Your task to perform on an android device: uninstall "Google Drive" Image 0: 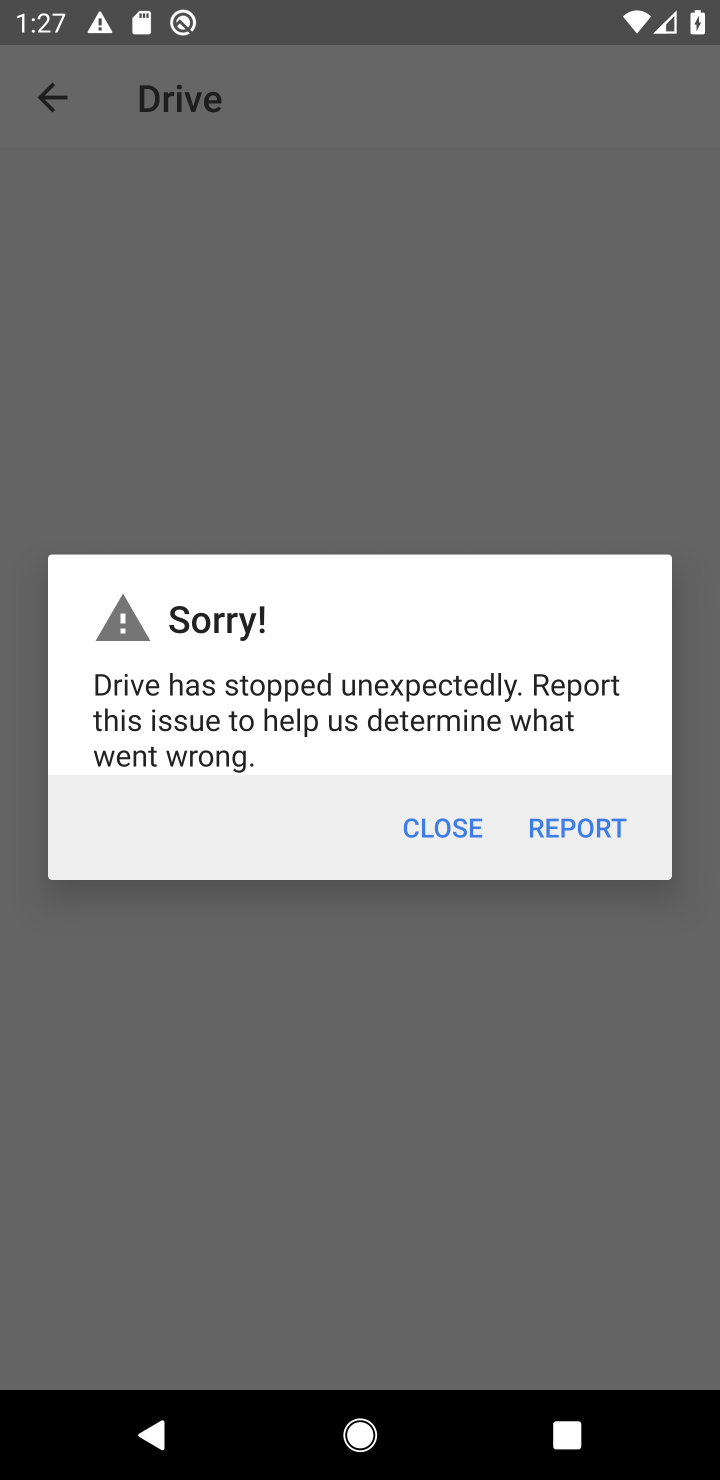
Step 0: press home button
Your task to perform on an android device: uninstall "Google Drive" Image 1: 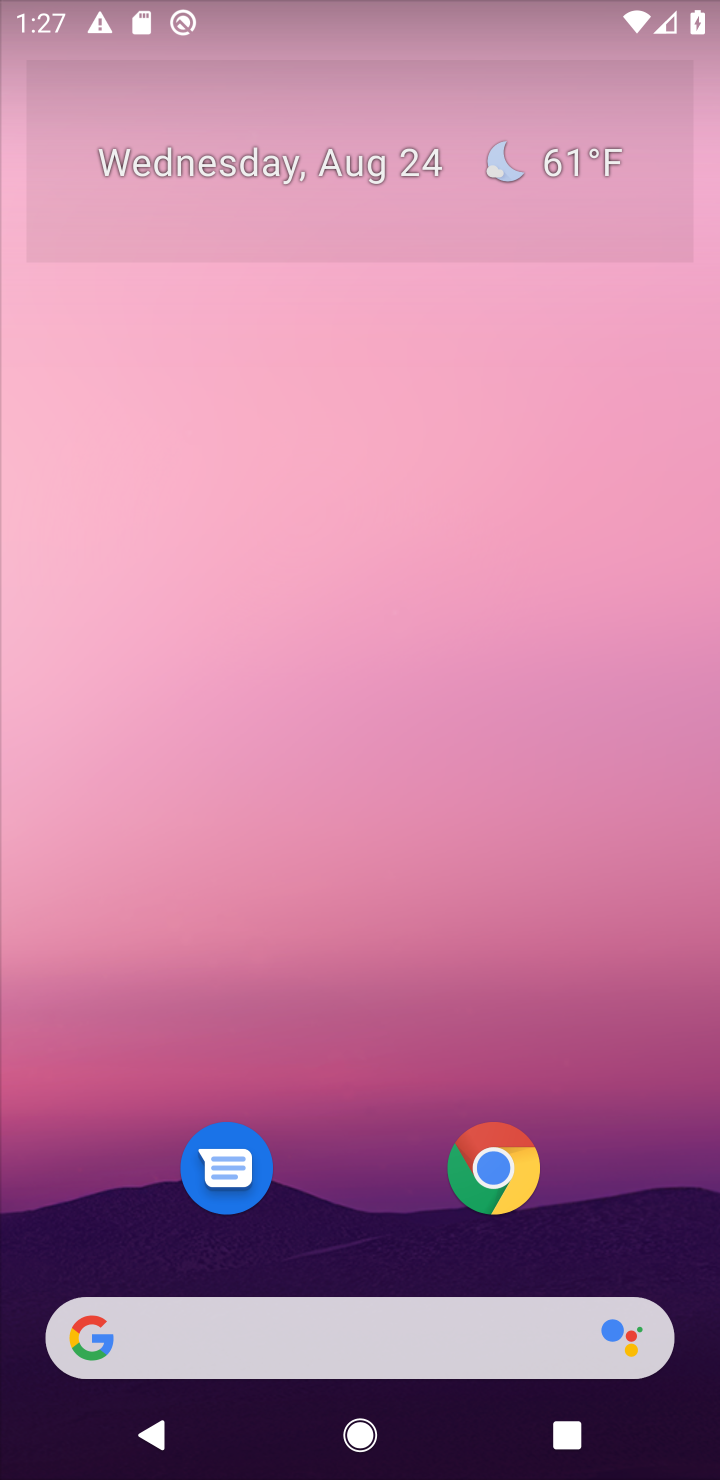
Step 1: drag from (677, 1189) to (633, 223)
Your task to perform on an android device: uninstall "Google Drive" Image 2: 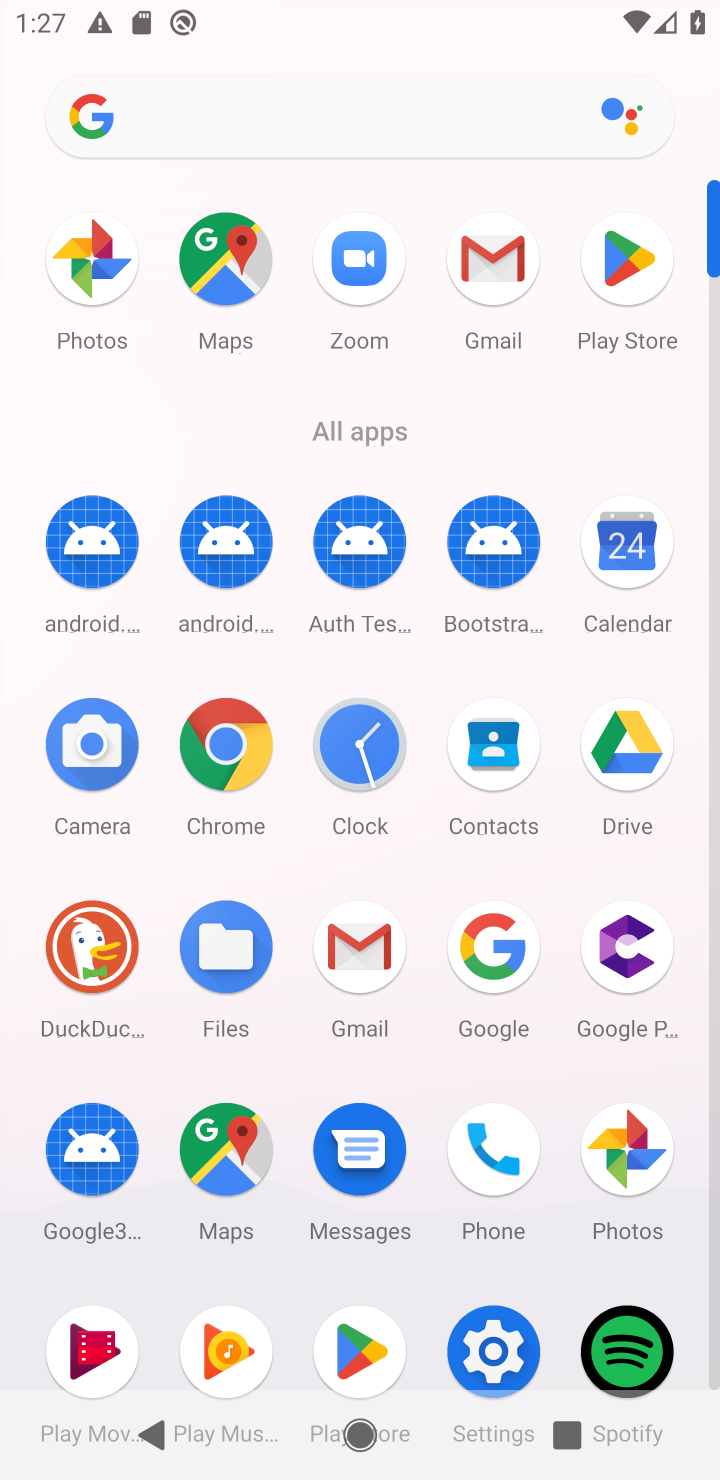
Step 2: click (716, 1302)
Your task to perform on an android device: uninstall "Google Drive" Image 3: 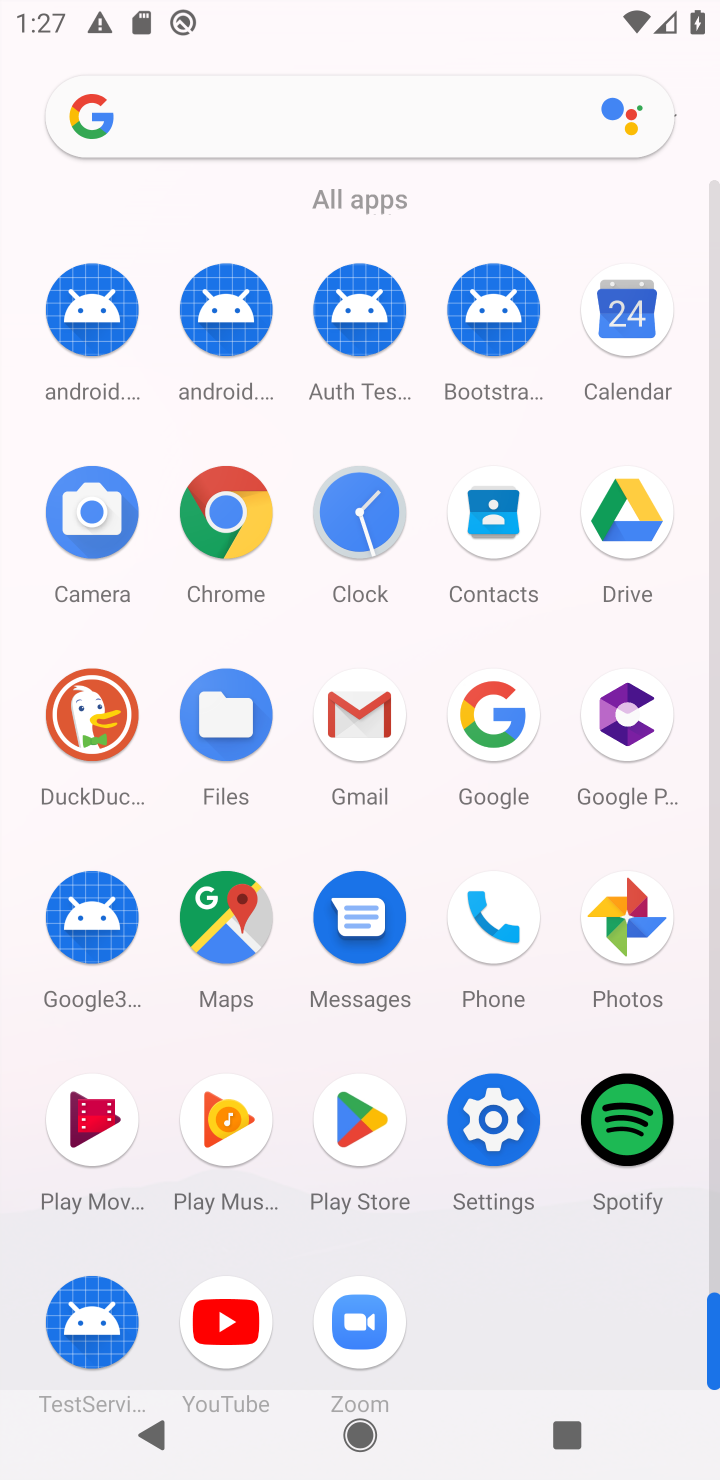
Step 3: click (361, 1115)
Your task to perform on an android device: uninstall "Google Drive" Image 4: 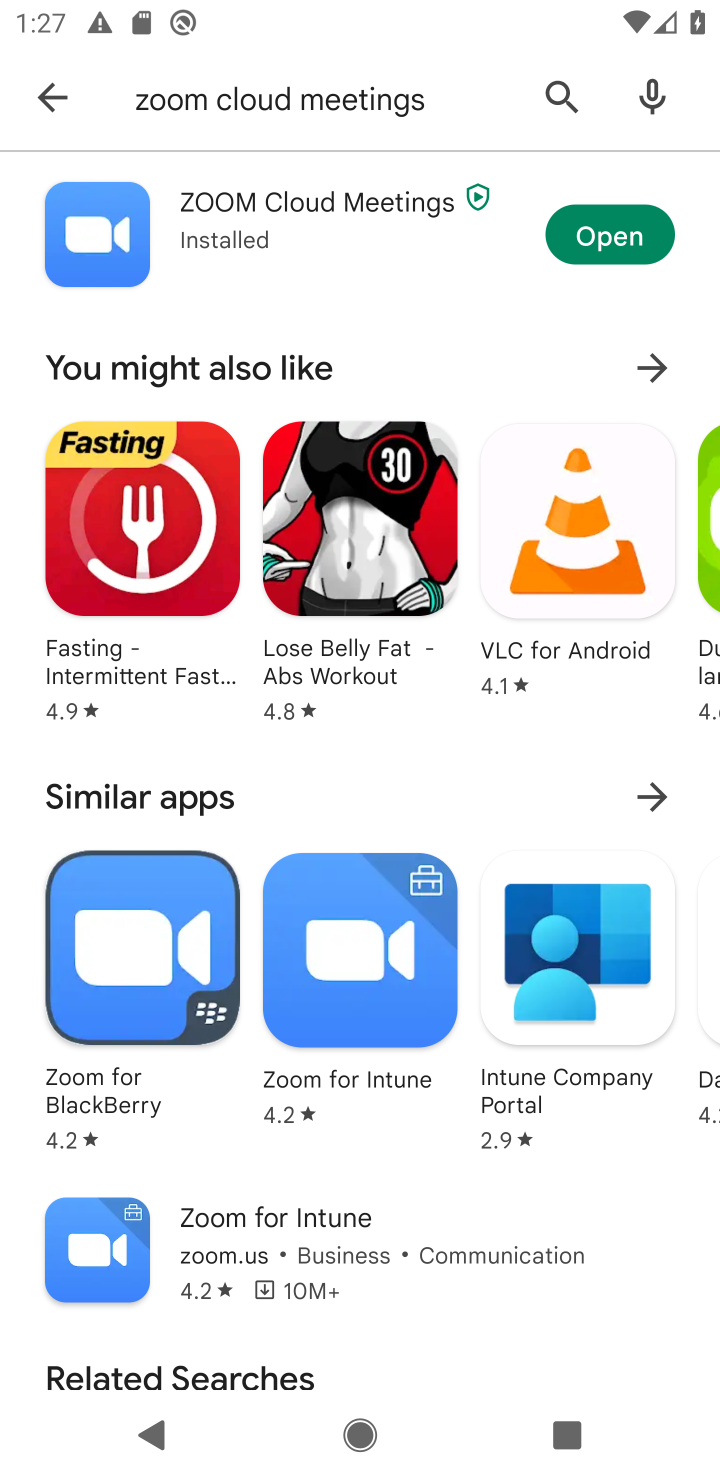
Step 4: click (547, 86)
Your task to perform on an android device: uninstall "Google Drive" Image 5: 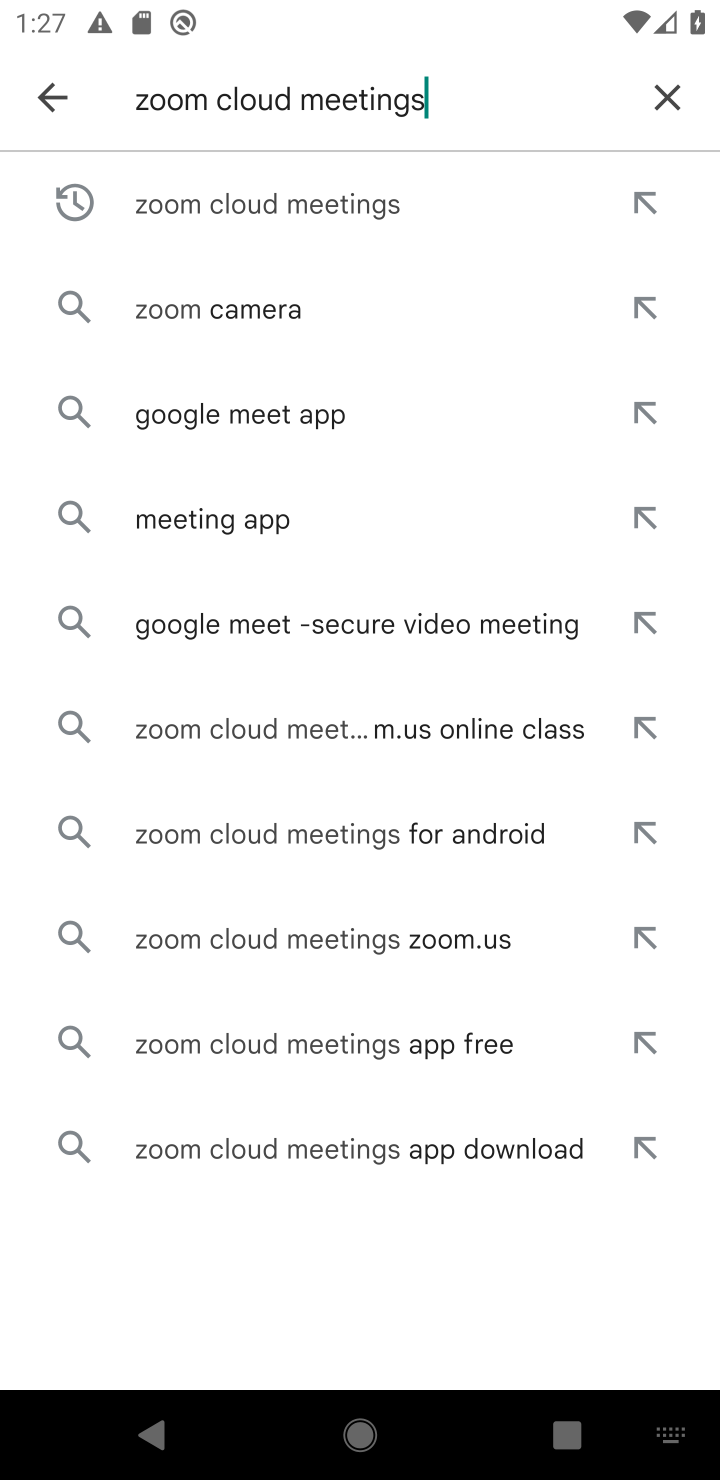
Step 5: click (667, 94)
Your task to perform on an android device: uninstall "Google Drive" Image 6: 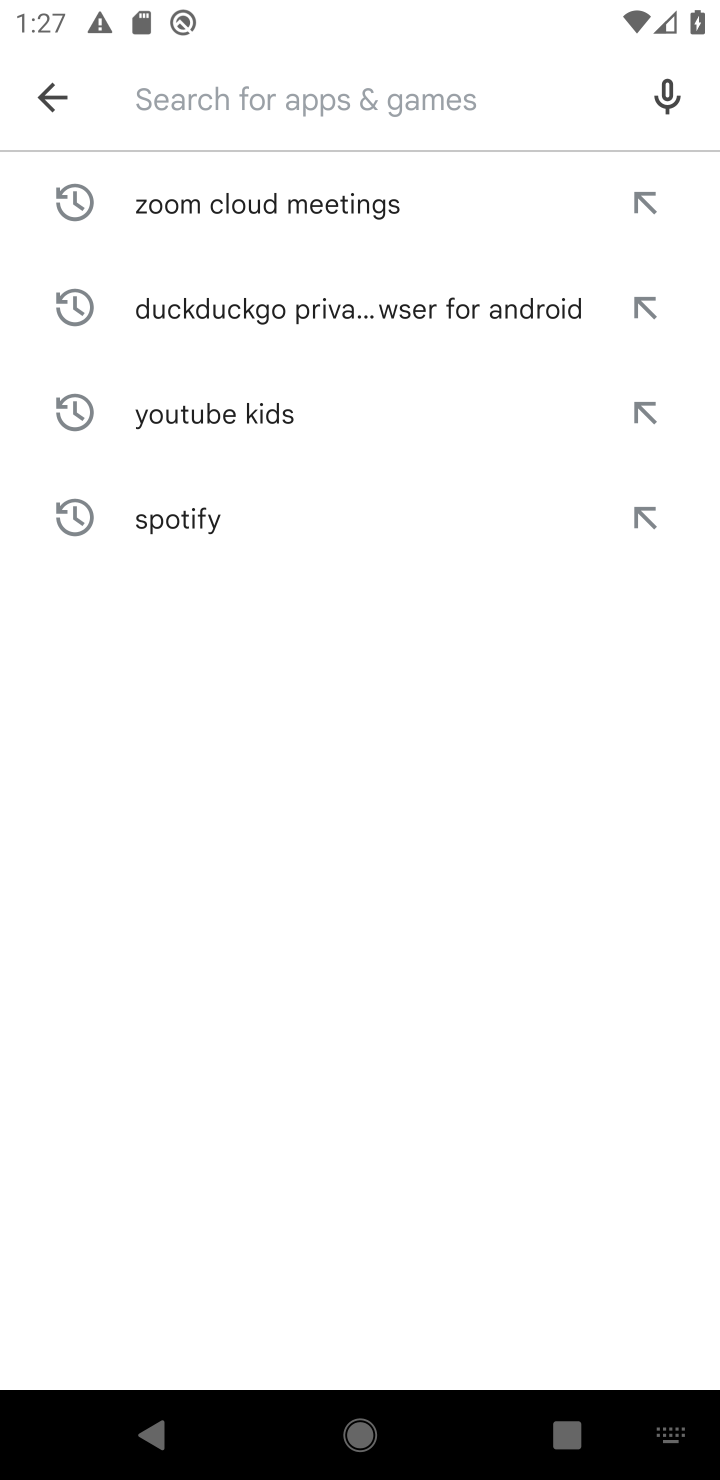
Step 6: type "Google Drive"
Your task to perform on an android device: uninstall "Google Drive" Image 7: 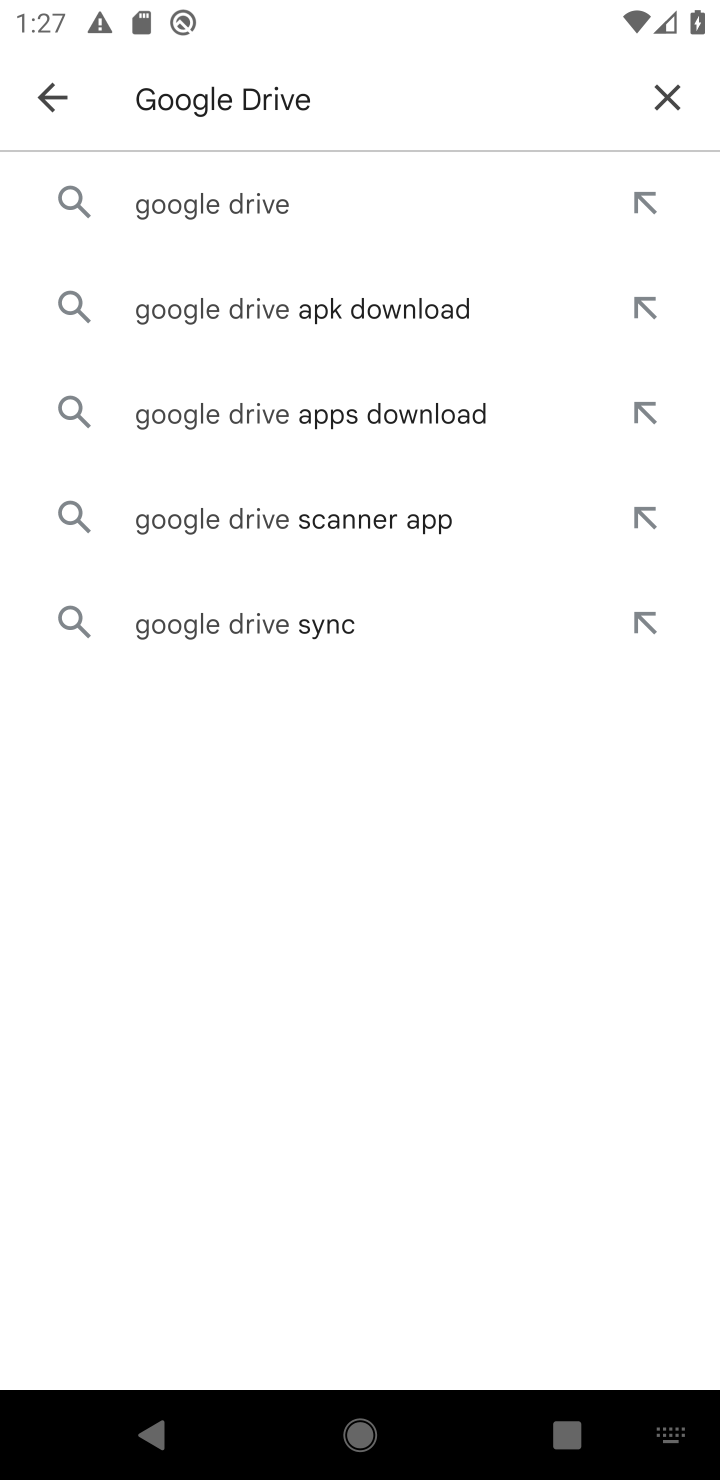
Step 7: click (218, 193)
Your task to perform on an android device: uninstall "Google Drive" Image 8: 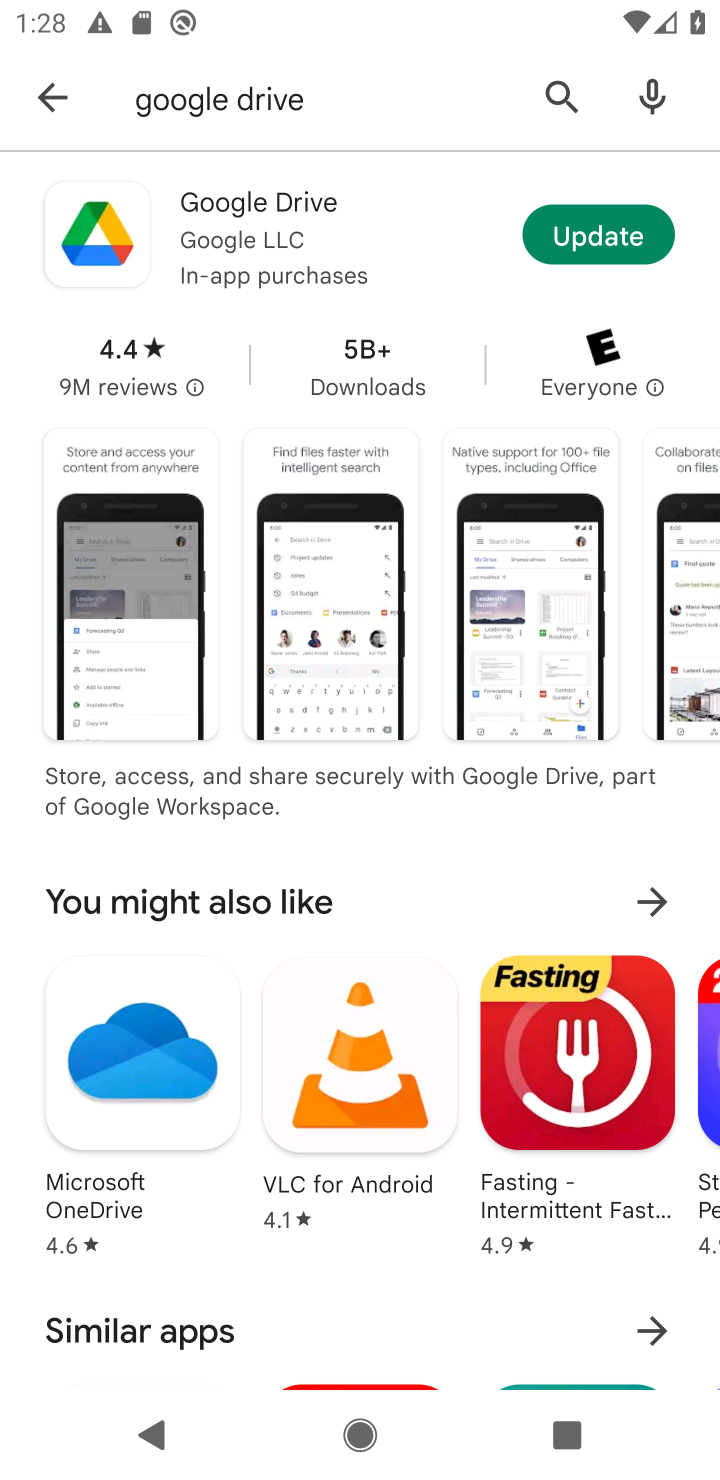
Step 8: click (263, 236)
Your task to perform on an android device: uninstall "Google Drive" Image 9: 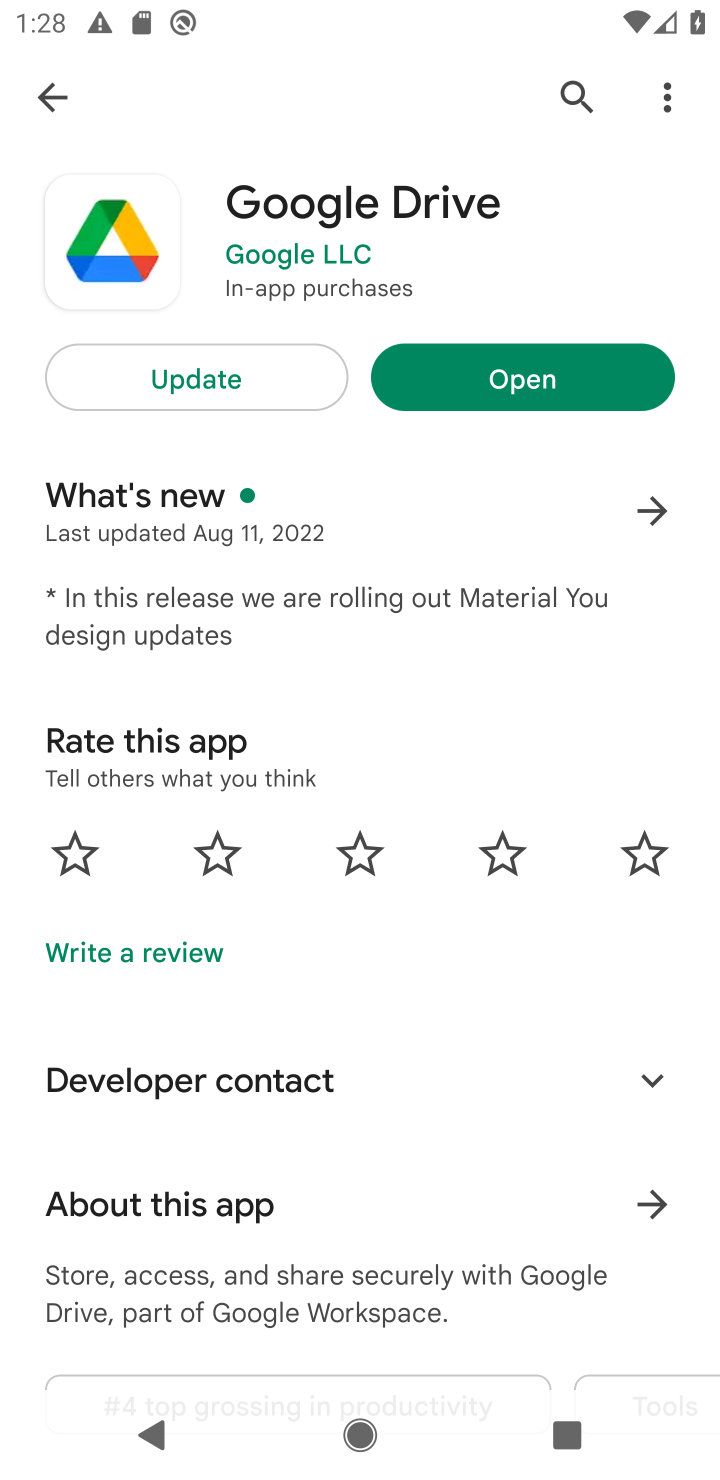
Step 9: click (183, 376)
Your task to perform on an android device: uninstall "Google Drive" Image 10: 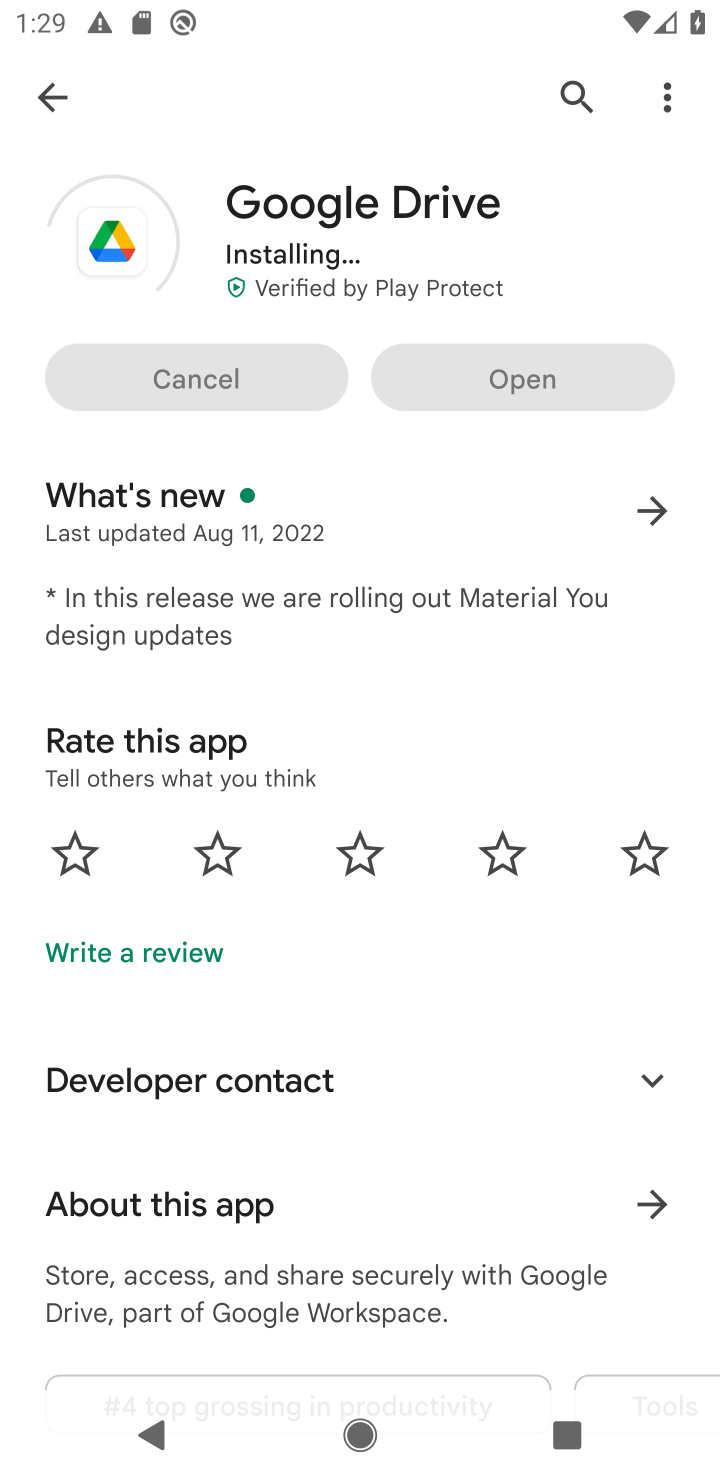
Step 10: press back button
Your task to perform on an android device: uninstall "Google Drive" Image 11: 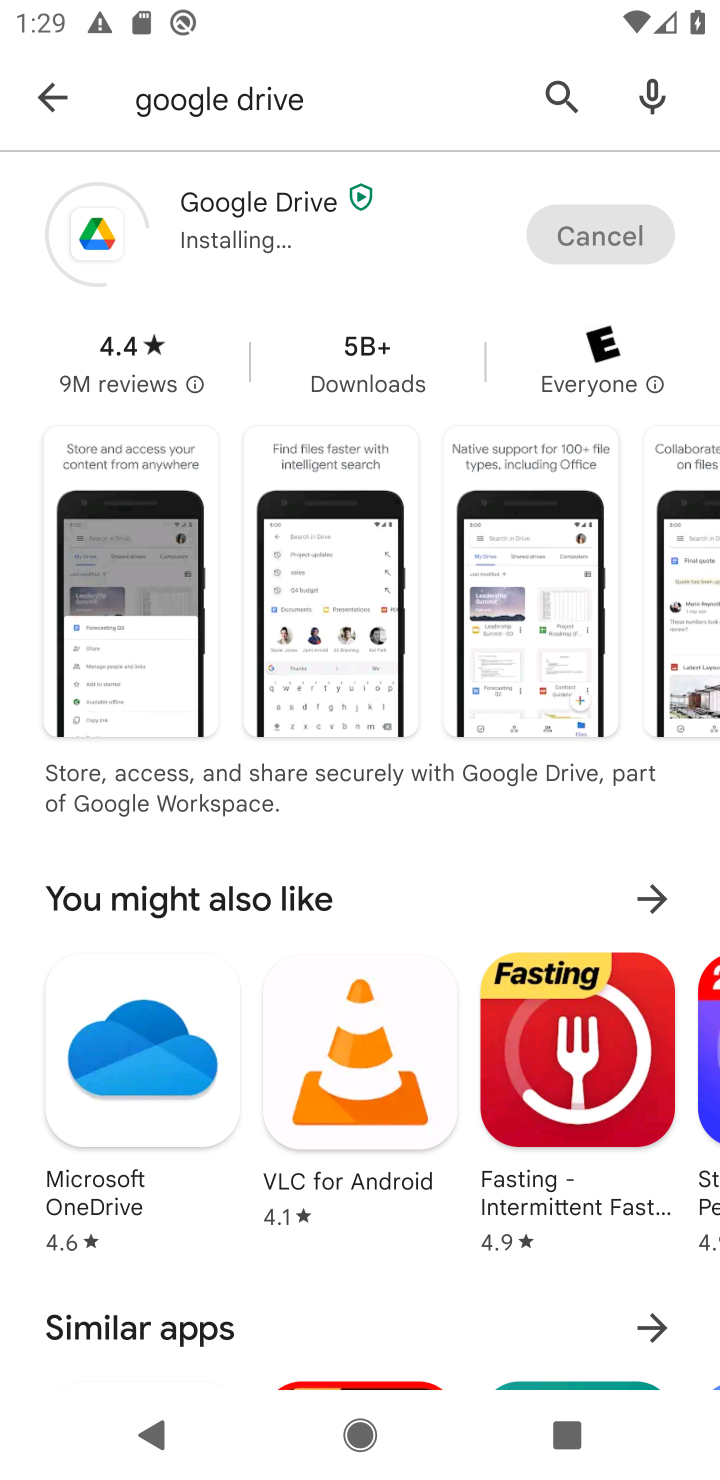
Step 11: click (208, 215)
Your task to perform on an android device: uninstall "Google Drive" Image 12: 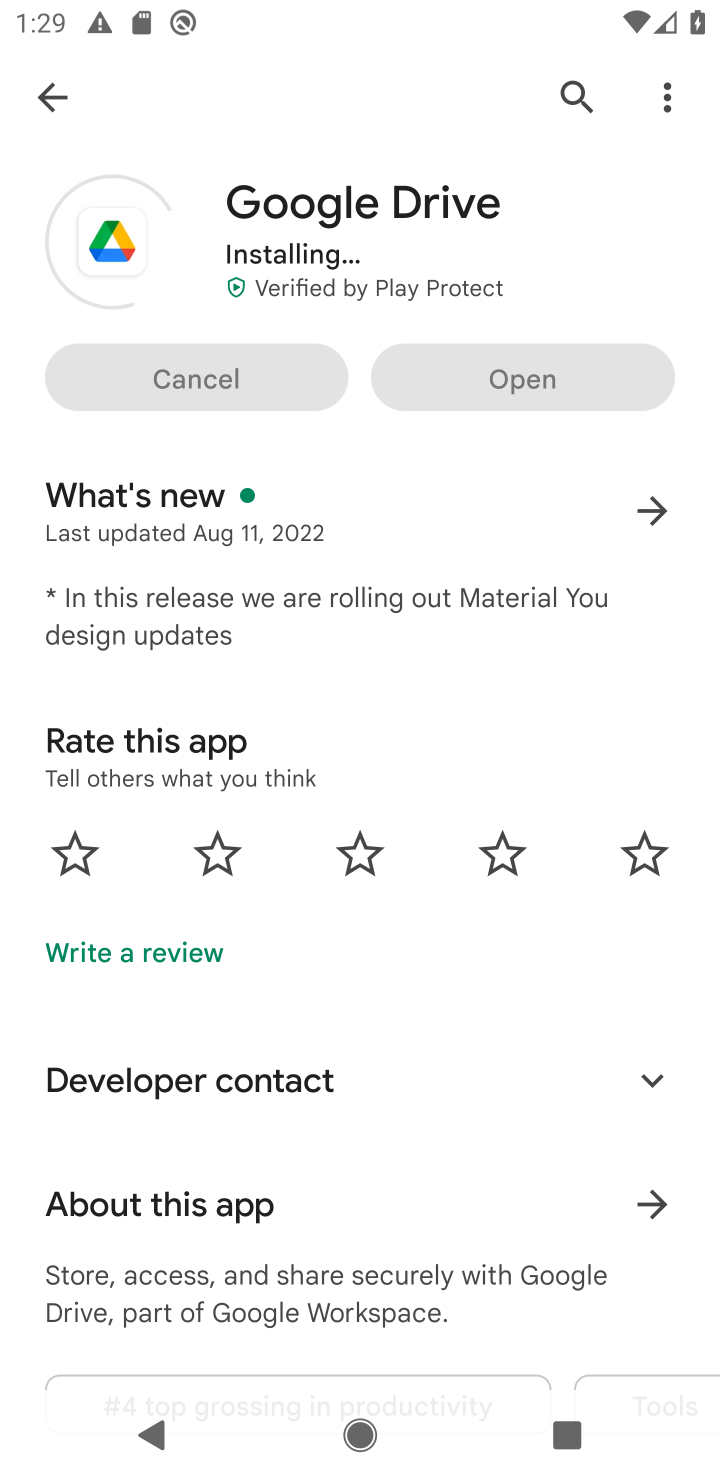
Step 12: drag from (356, 297) to (354, 374)
Your task to perform on an android device: uninstall "Google Drive" Image 13: 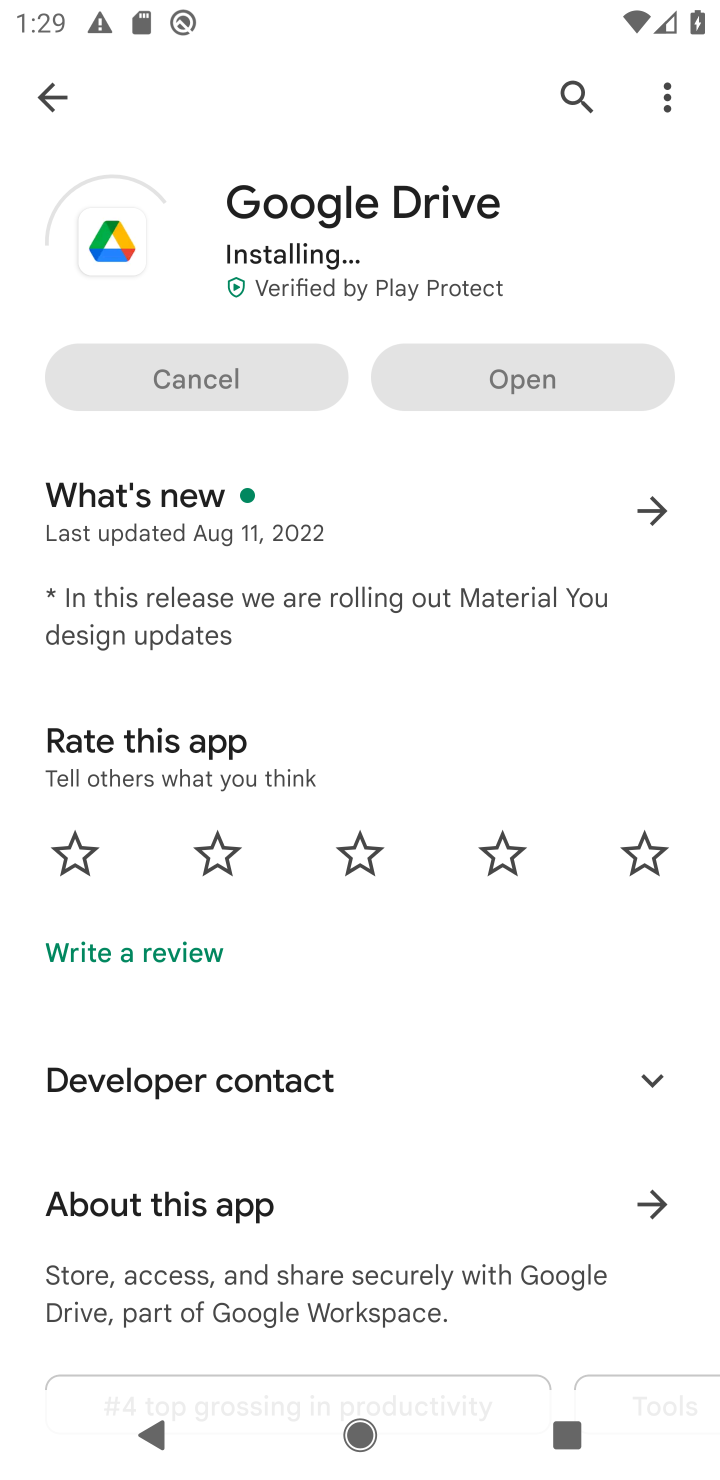
Step 13: click (358, 419)
Your task to perform on an android device: uninstall "Google Drive" Image 14: 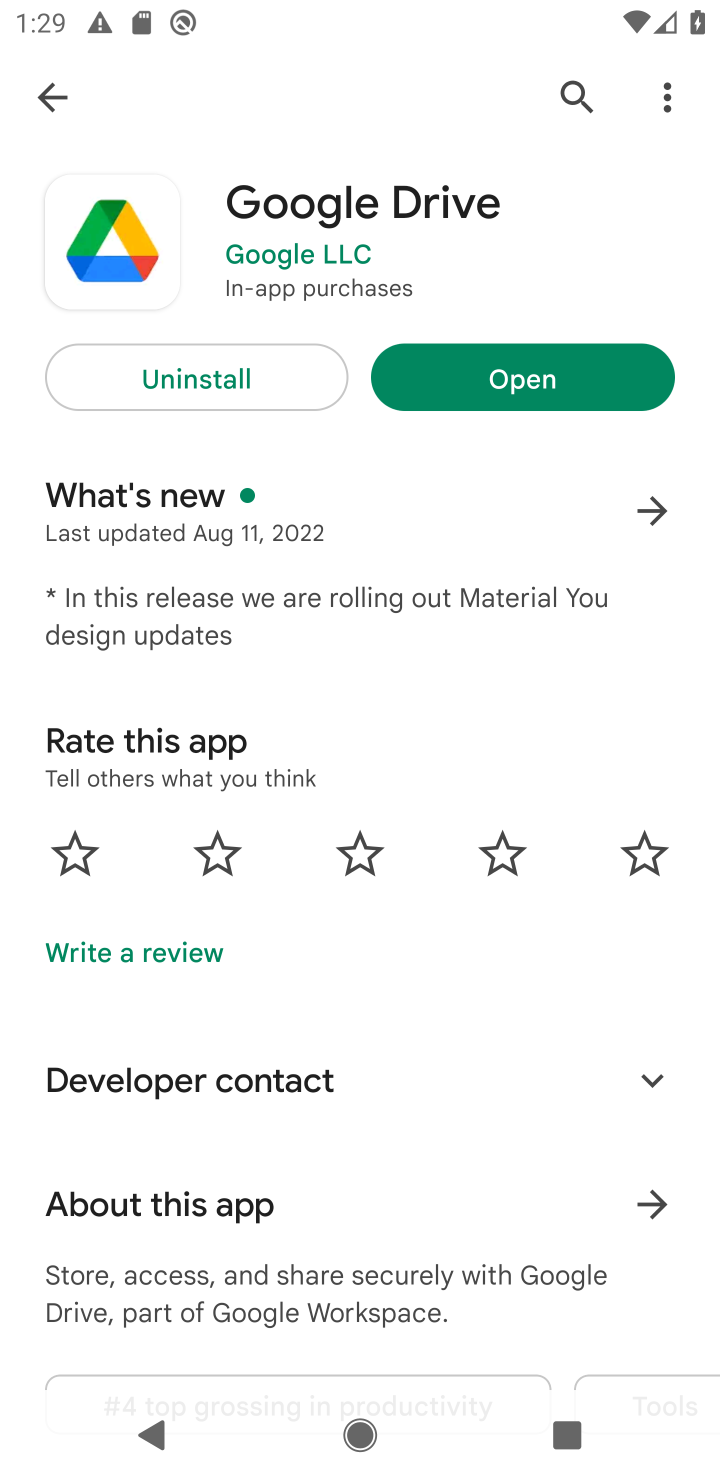
Step 14: click (177, 370)
Your task to perform on an android device: uninstall "Google Drive" Image 15: 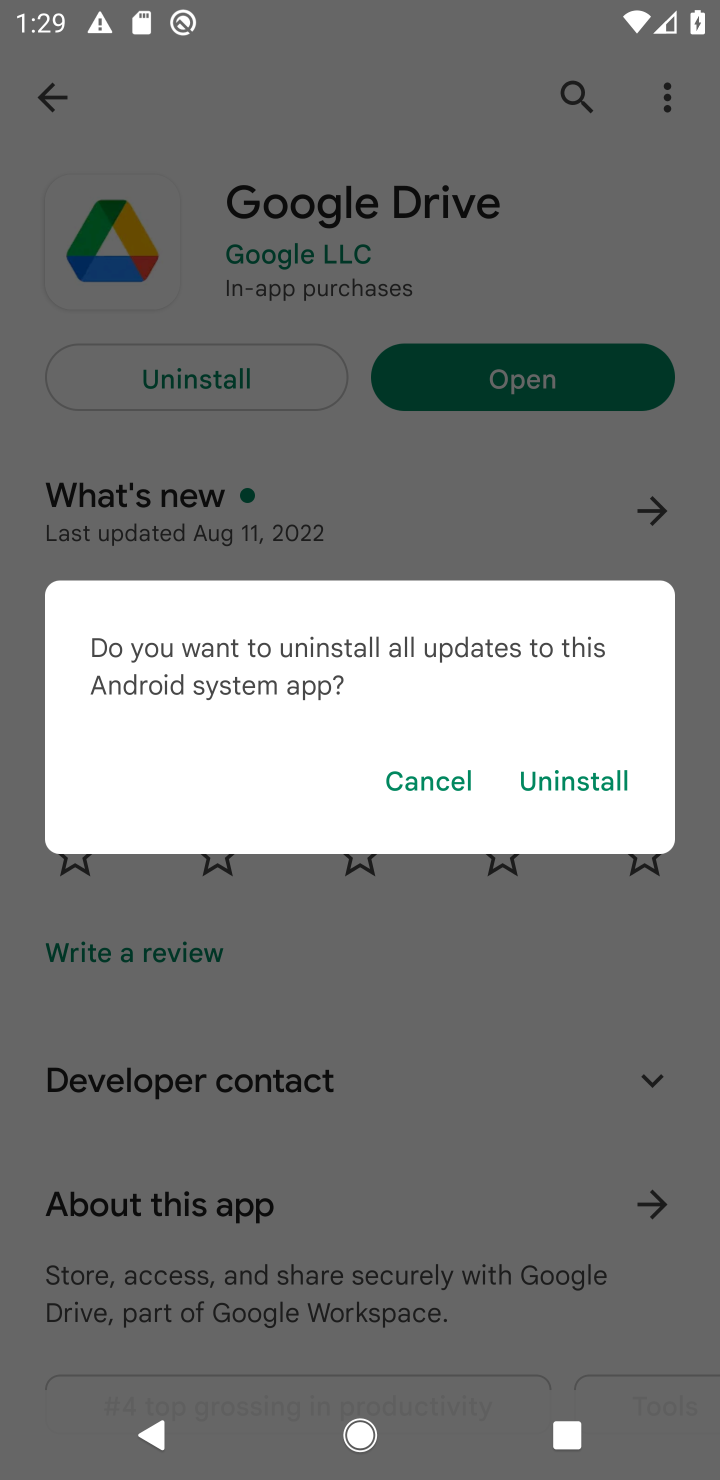
Step 15: click (558, 775)
Your task to perform on an android device: uninstall "Google Drive" Image 16: 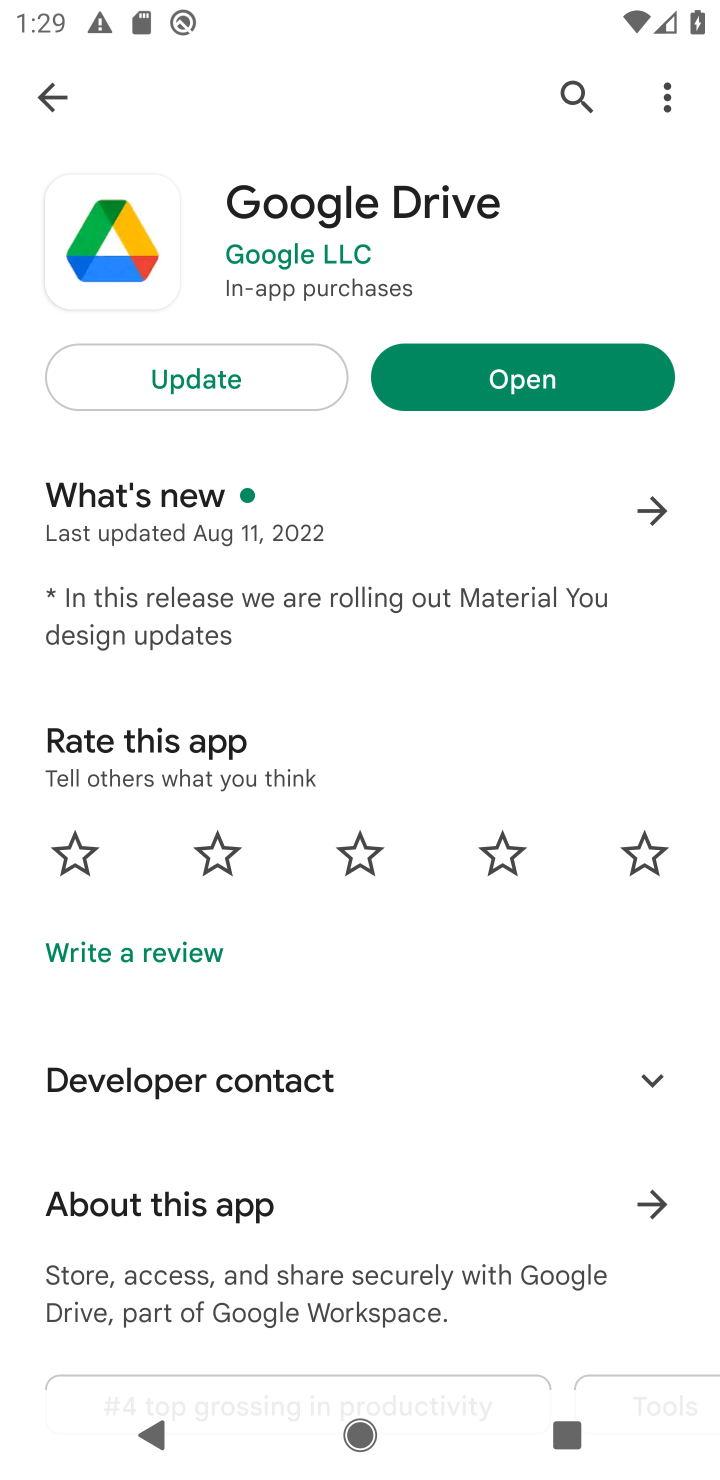
Step 16: task complete